Your task to perform on an android device: Open my contact list Image 0: 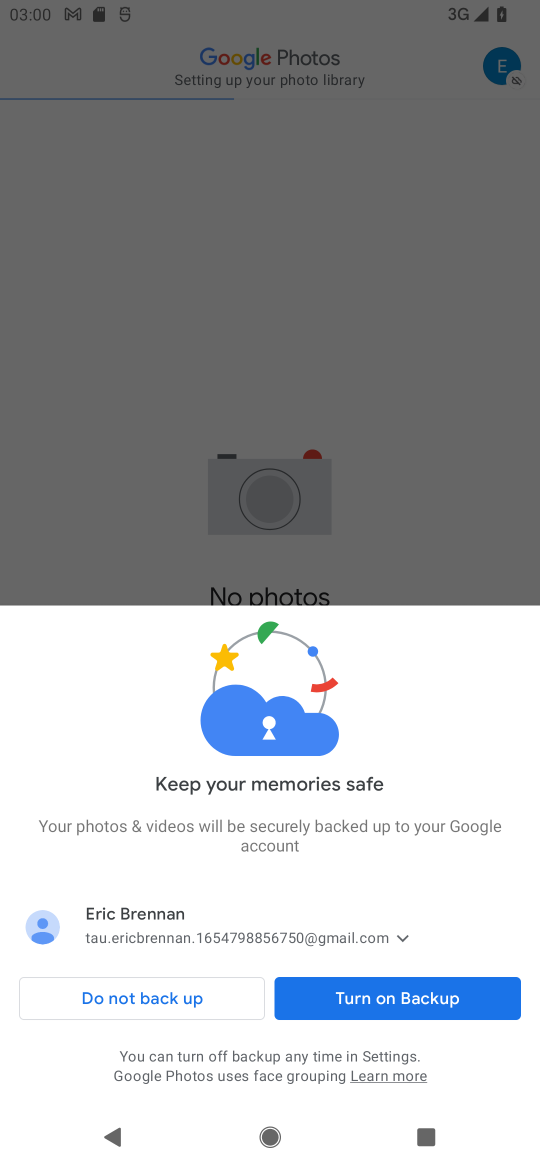
Step 0: press home button
Your task to perform on an android device: Open my contact list Image 1: 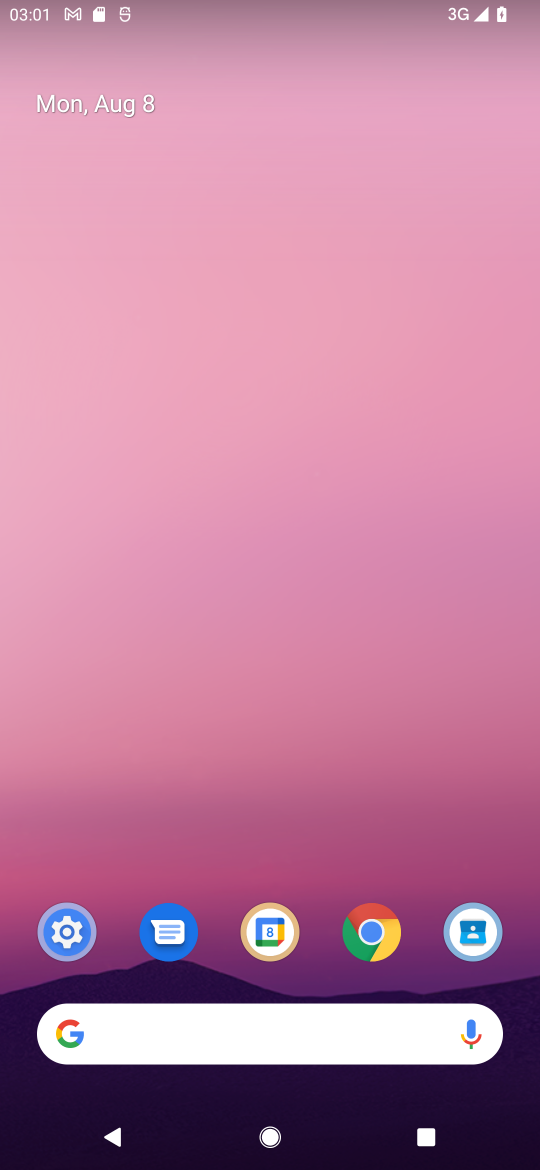
Step 1: drag from (277, 926) to (256, 68)
Your task to perform on an android device: Open my contact list Image 2: 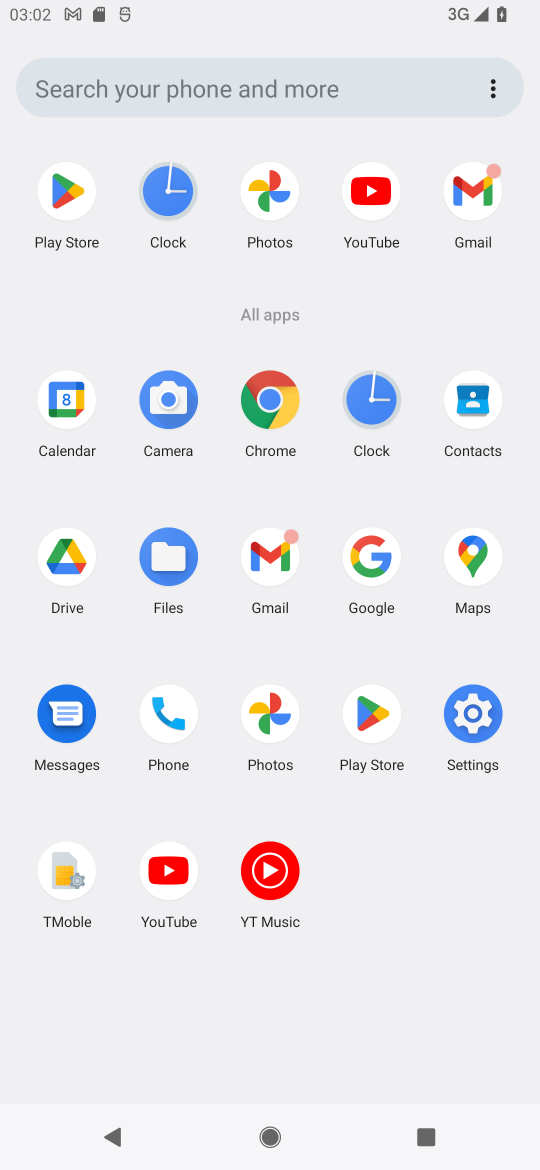
Step 2: click (169, 726)
Your task to perform on an android device: Open my contact list Image 3: 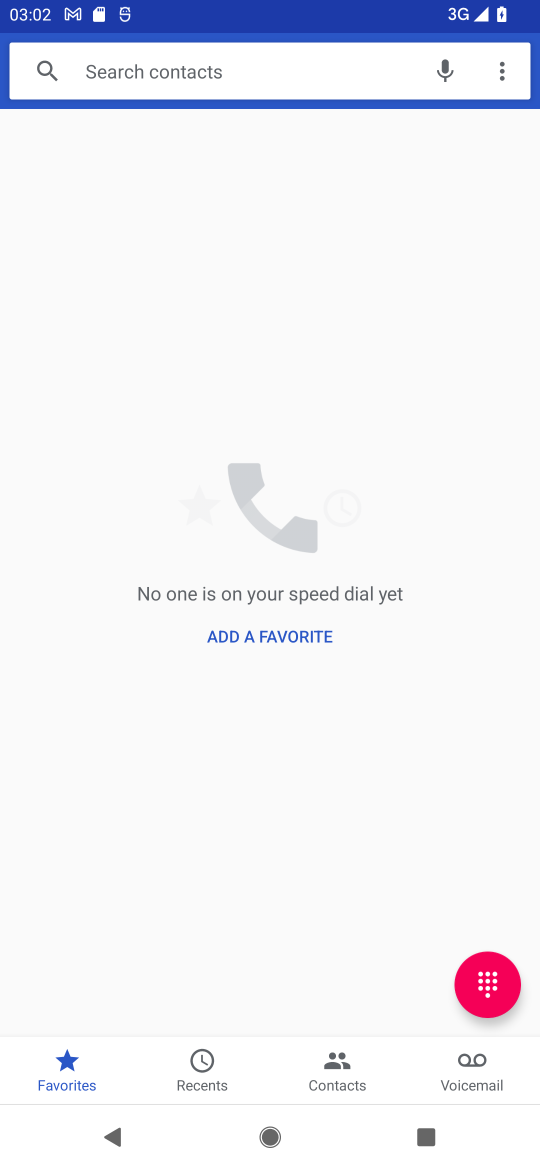
Step 3: click (333, 1079)
Your task to perform on an android device: Open my contact list Image 4: 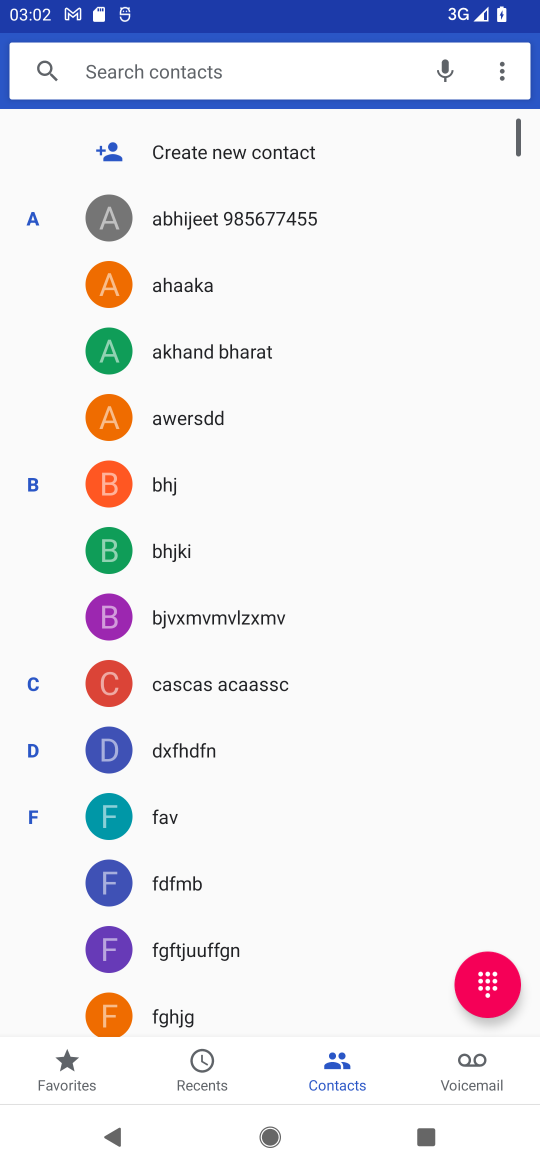
Step 4: task complete